Your task to perform on an android device: turn off notifications settings in the gmail app Image 0: 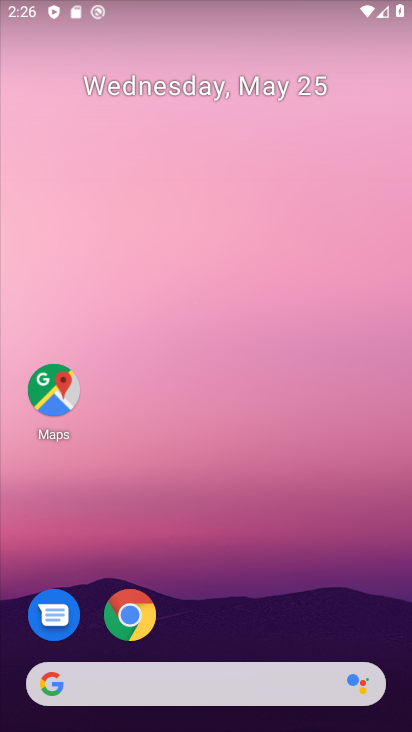
Step 0: drag from (348, 646) to (342, 9)
Your task to perform on an android device: turn off notifications settings in the gmail app Image 1: 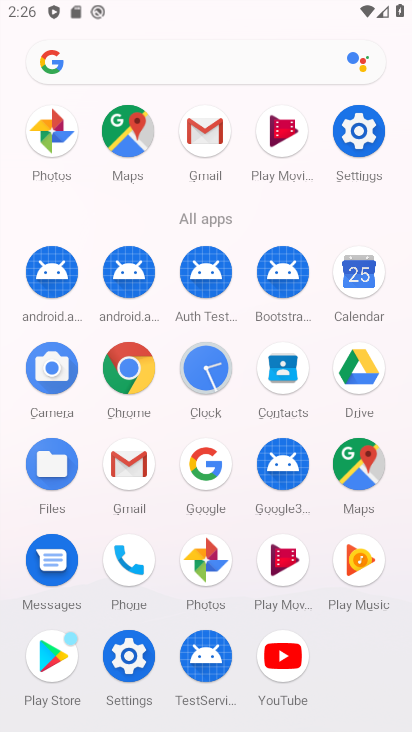
Step 1: click (128, 462)
Your task to perform on an android device: turn off notifications settings in the gmail app Image 2: 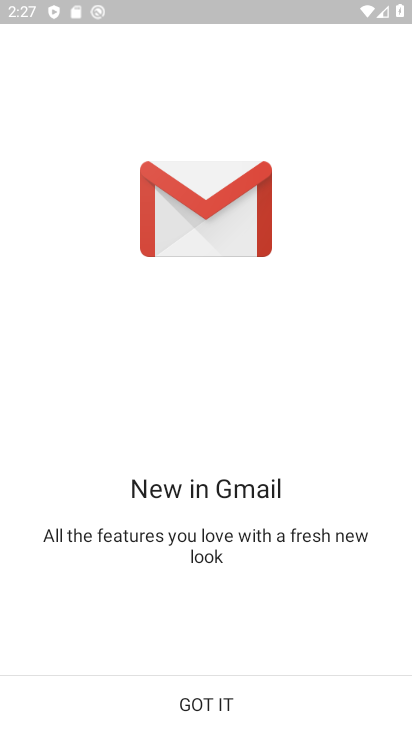
Step 2: click (242, 692)
Your task to perform on an android device: turn off notifications settings in the gmail app Image 3: 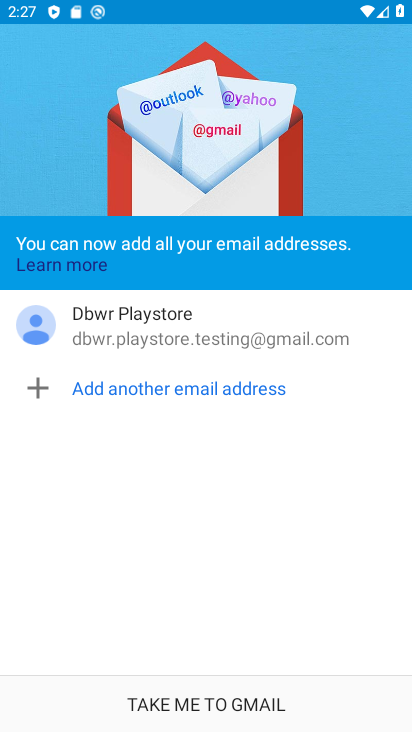
Step 3: click (198, 690)
Your task to perform on an android device: turn off notifications settings in the gmail app Image 4: 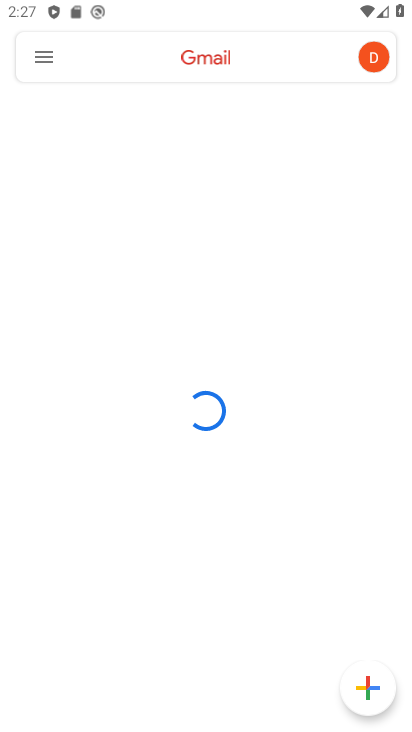
Step 4: click (47, 65)
Your task to perform on an android device: turn off notifications settings in the gmail app Image 5: 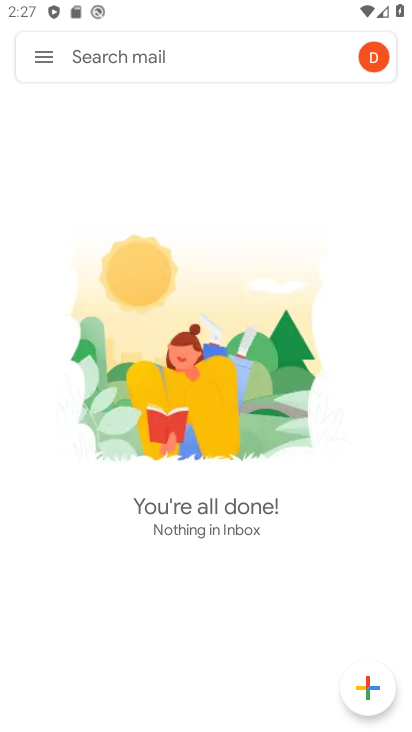
Step 5: click (55, 68)
Your task to perform on an android device: turn off notifications settings in the gmail app Image 6: 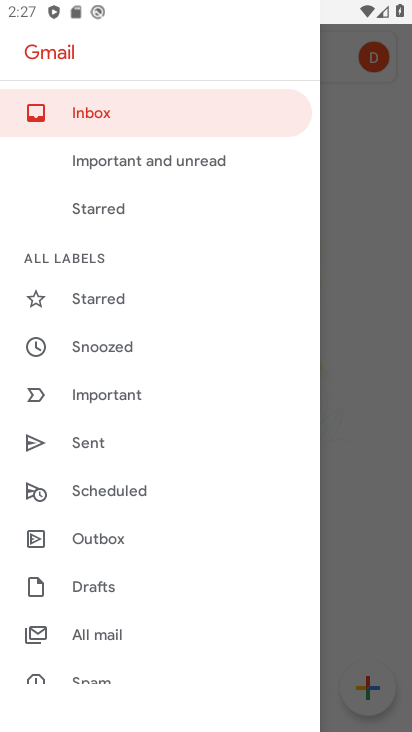
Step 6: drag from (115, 625) to (127, 210)
Your task to perform on an android device: turn off notifications settings in the gmail app Image 7: 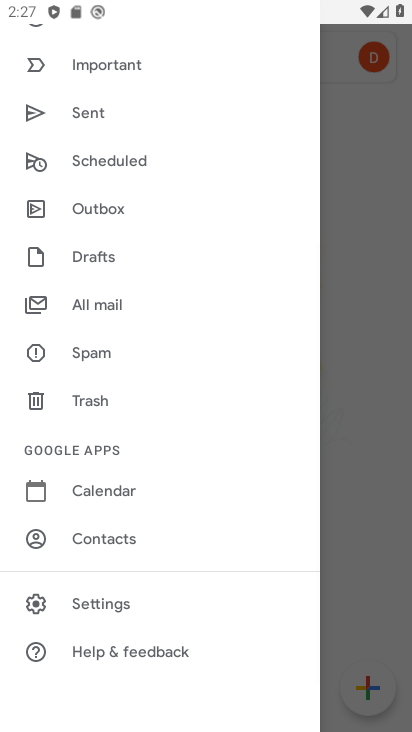
Step 7: click (149, 602)
Your task to perform on an android device: turn off notifications settings in the gmail app Image 8: 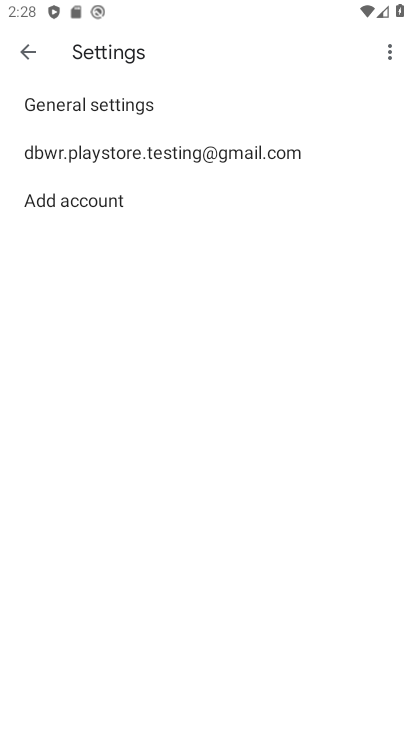
Step 8: click (138, 158)
Your task to perform on an android device: turn off notifications settings in the gmail app Image 9: 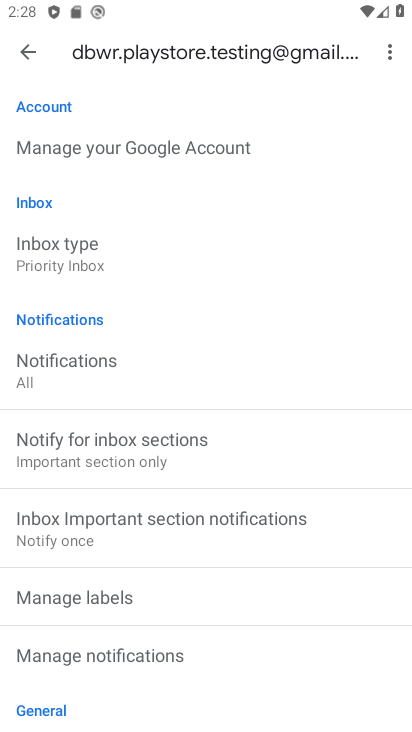
Step 9: click (111, 658)
Your task to perform on an android device: turn off notifications settings in the gmail app Image 10: 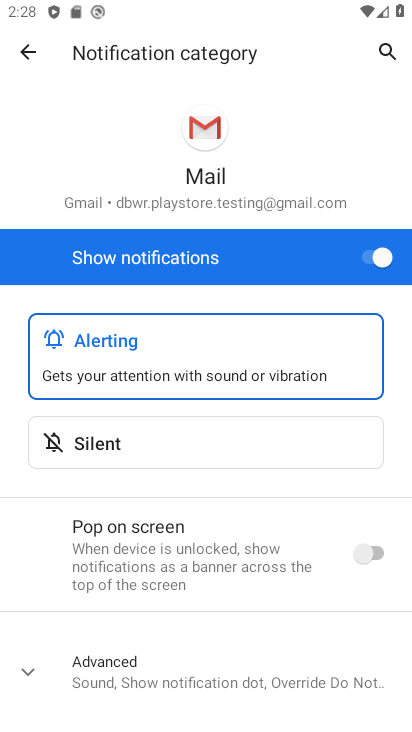
Step 10: click (386, 258)
Your task to perform on an android device: turn off notifications settings in the gmail app Image 11: 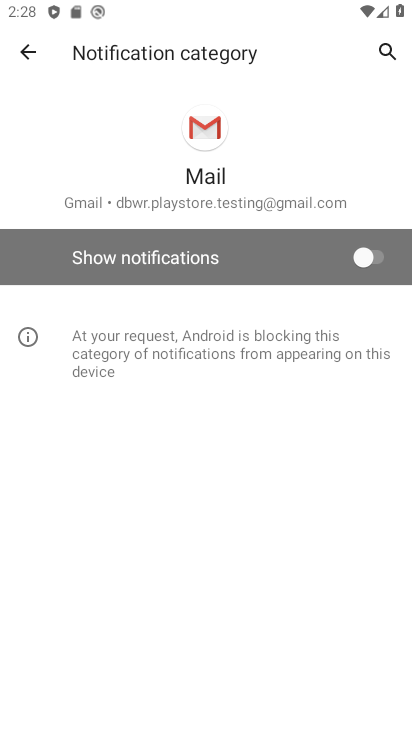
Step 11: task complete